Your task to perform on an android device: Open Youtube and go to the subscriptions tab Image 0: 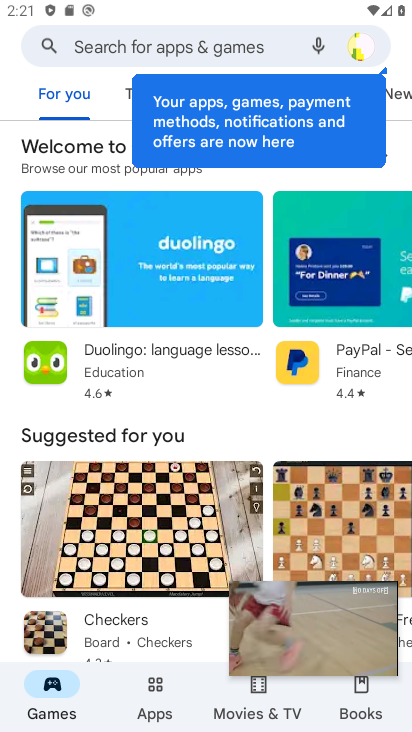
Step 0: press home button
Your task to perform on an android device: Open Youtube and go to the subscriptions tab Image 1: 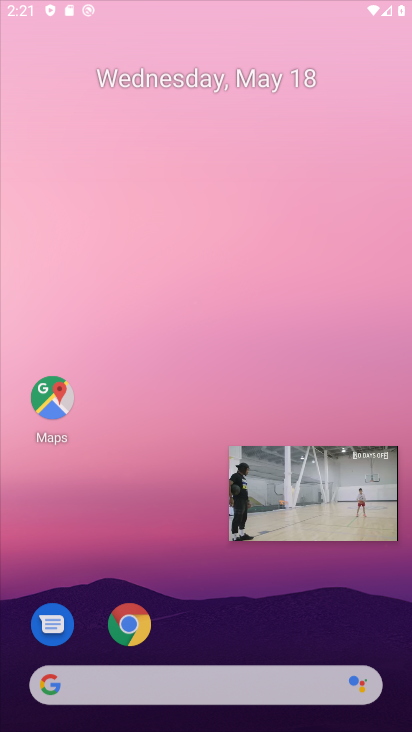
Step 1: click (351, 617)
Your task to perform on an android device: Open Youtube and go to the subscriptions tab Image 2: 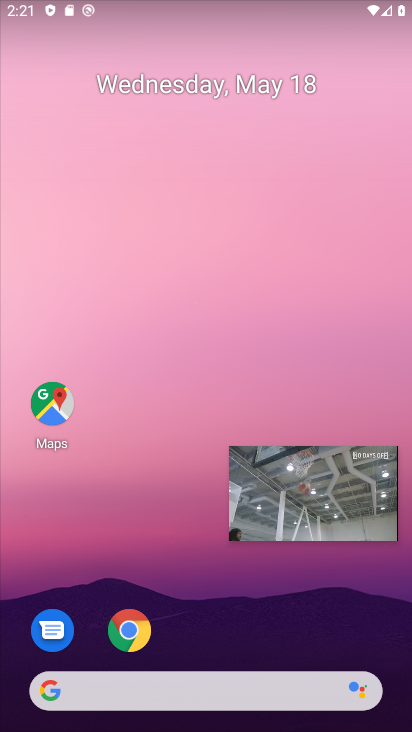
Step 2: click (371, 466)
Your task to perform on an android device: Open Youtube and go to the subscriptions tab Image 3: 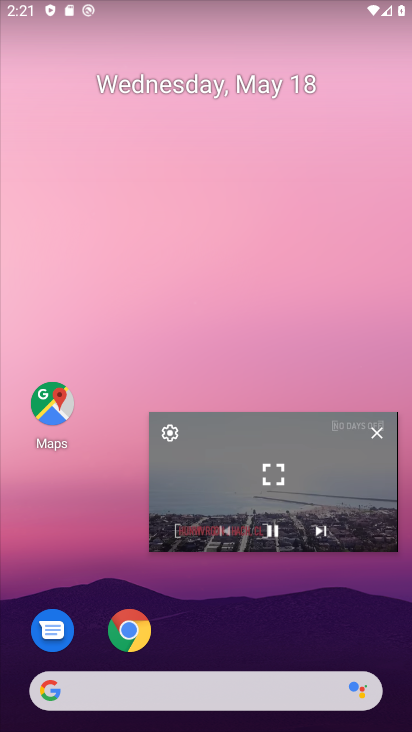
Step 3: click (382, 426)
Your task to perform on an android device: Open Youtube and go to the subscriptions tab Image 4: 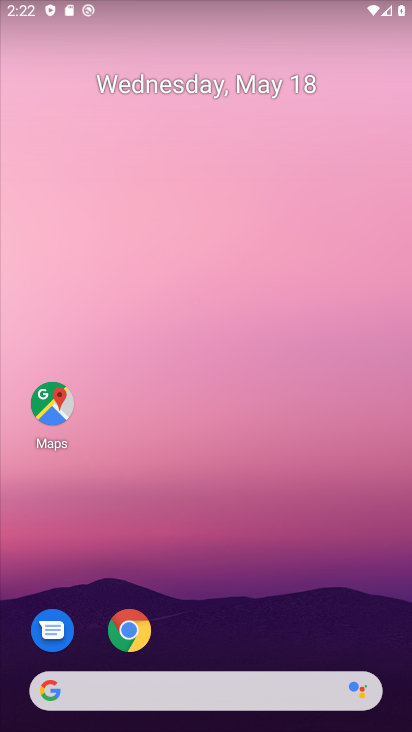
Step 4: drag from (209, 654) to (226, 11)
Your task to perform on an android device: Open Youtube and go to the subscriptions tab Image 5: 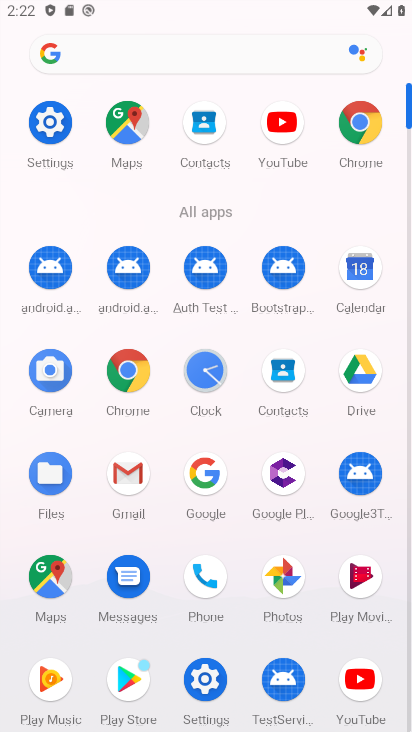
Step 5: click (362, 676)
Your task to perform on an android device: Open Youtube and go to the subscriptions tab Image 6: 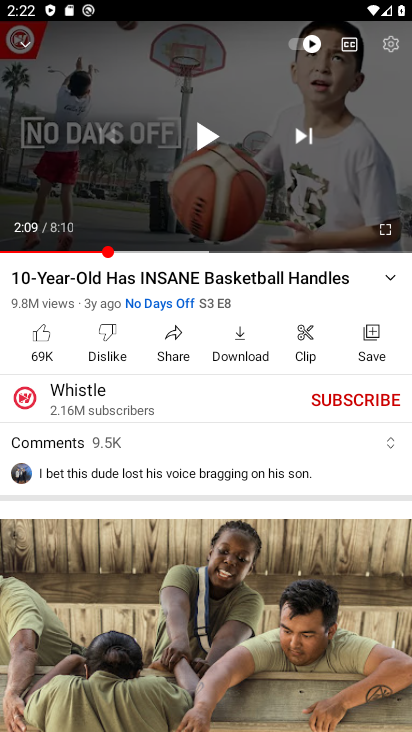
Step 6: press back button
Your task to perform on an android device: Open Youtube and go to the subscriptions tab Image 7: 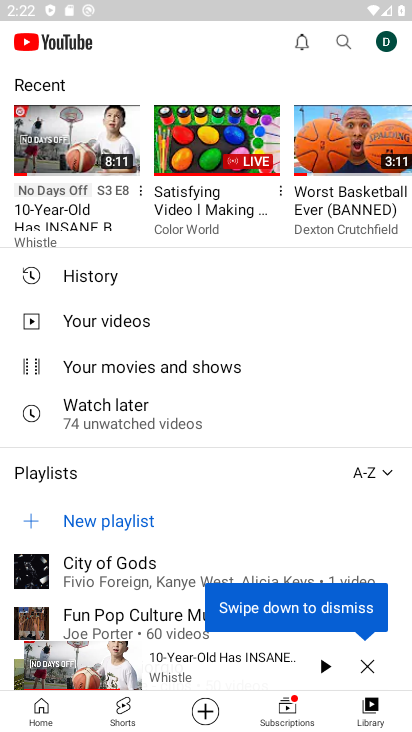
Step 7: click (280, 700)
Your task to perform on an android device: Open Youtube and go to the subscriptions tab Image 8: 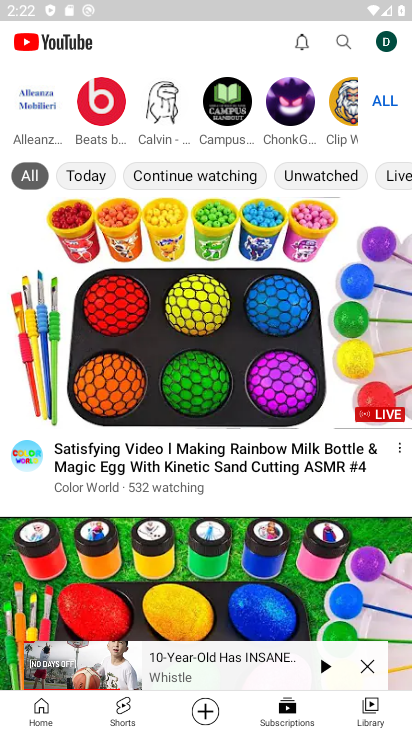
Step 8: task complete